Your task to perform on an android device: Check the weather Image 0: 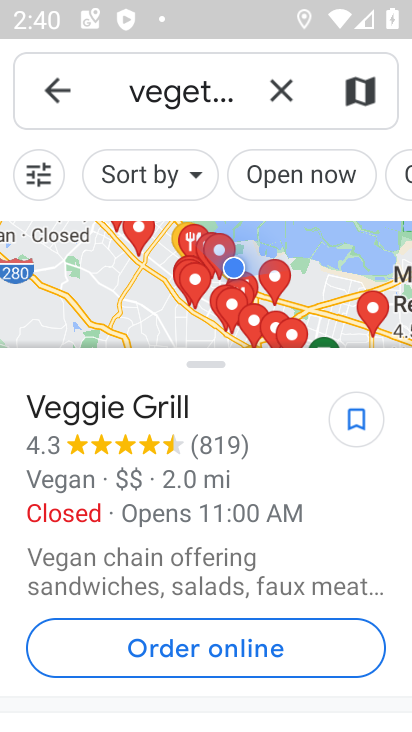
Step 0: press home button
Your task to perform on an android device: Check the weather Image 1: 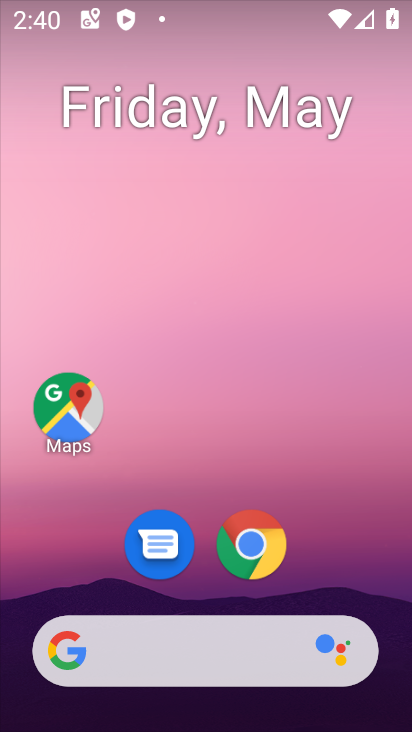
Step 1: drag from (211, 608) to (208, 265)
Your task to perform on an android device: Check the weather Image 2: 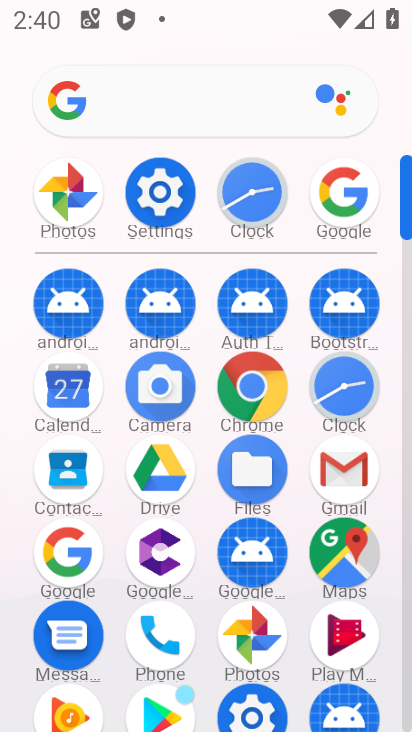
Step 2: click (357, 212)
Your task to perform on an android device: Check the weather Image 3: 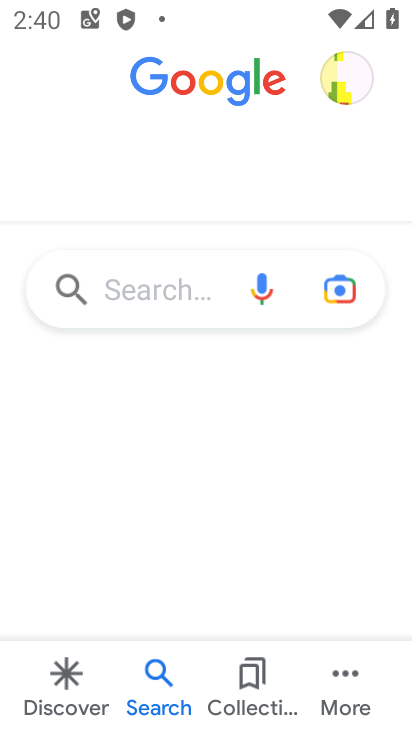
Step 3: click (160, 270)
Your task to perform on an android device: Check the weather Image 4: 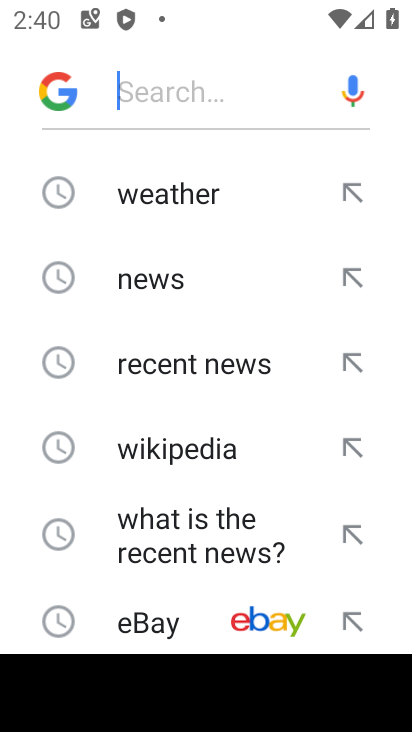
Step 4: click (170, 210)
Your task to perform on an android device: Check the weather Image 5: 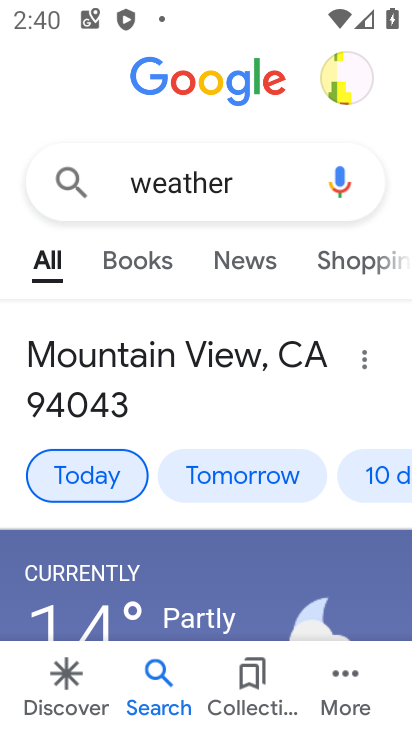
Step 5: task complete